Your task to perform on an android device: Open settings on Google Maps Image 0: 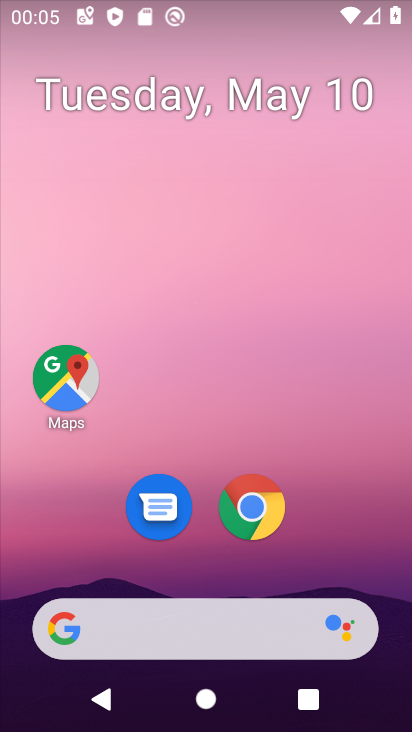
Step 0: drag from (334, 525) to (314, 384)
Your task to perform on an android device: Open settings on Google Maps Image 1: 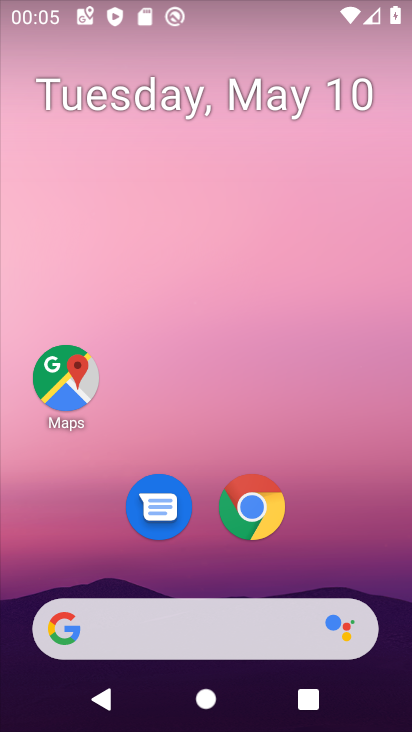
Step 1: click (60, 352)
Your task to perform on an android device: Open settings on Google Maps Image 2: 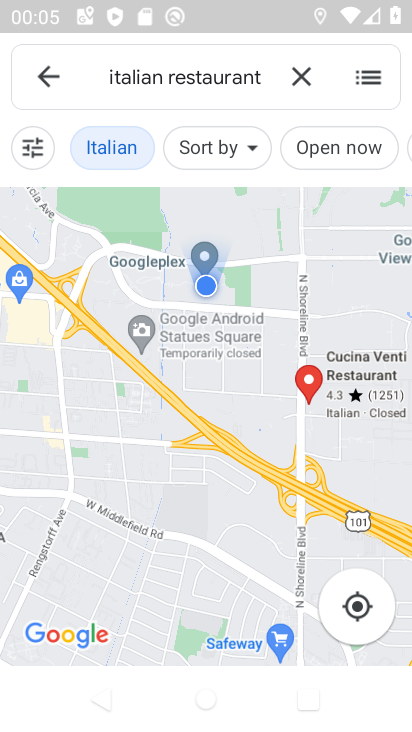
Step 2: click (34, 84)
Your task to perform on an android device: Open settings on Google Maps Image 3: 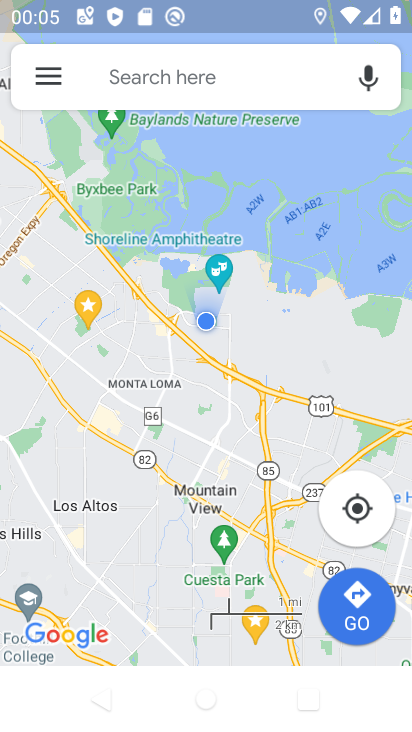
Step 3: click (32, 72)
Your task to perform on an android device: Open settings on Google Maps Image 4: 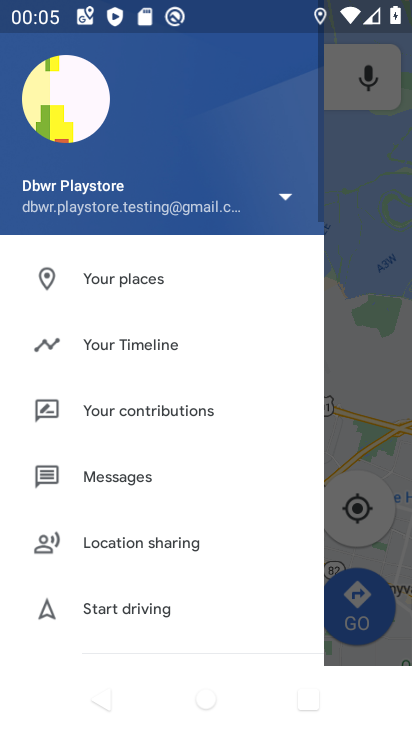
Step 4: drag from (123, 590) to (101, 97)
Your task to perform on an android device: Open settings on Google Maps Image 5: 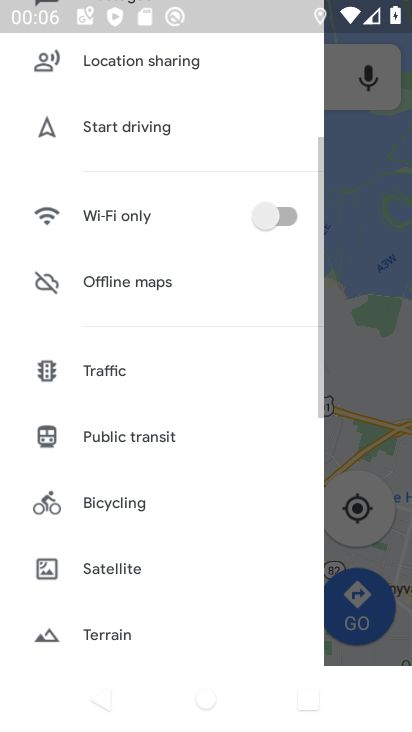
Step 5: drag from (133, 584) to (98, 174)
Your task to perform on an android device: Open settings on Google Maps Image 6: 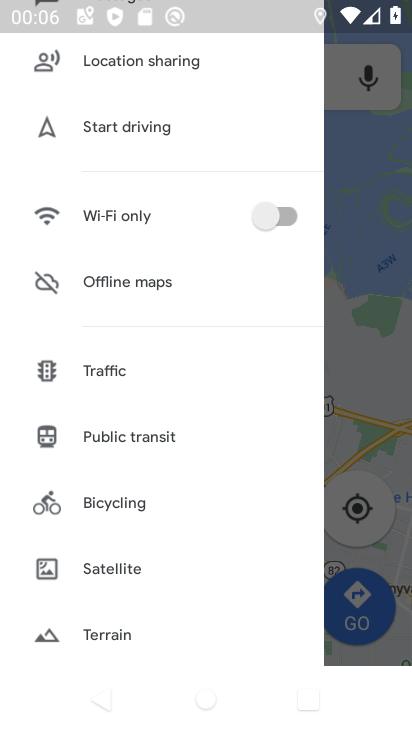
Step 6: drag from (82, 608) to (58, 377)
Your task to perform on an android device: Open settings on Google Maps Image 7: 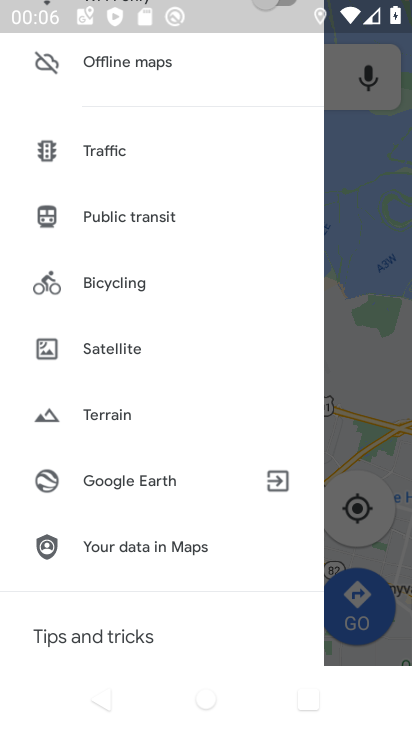
Step 7: drag from (64, 575) to (40, 448)
Your task to perform on an android device: Open settings on Google Maps Image 8: 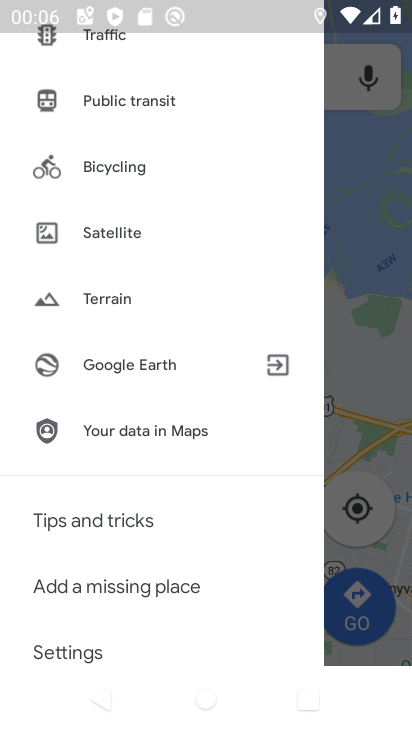
Step 8: drag from (183, 531) to (178, 195)
Your task to perform on an android device: Open settings on Google Maps Image 9: 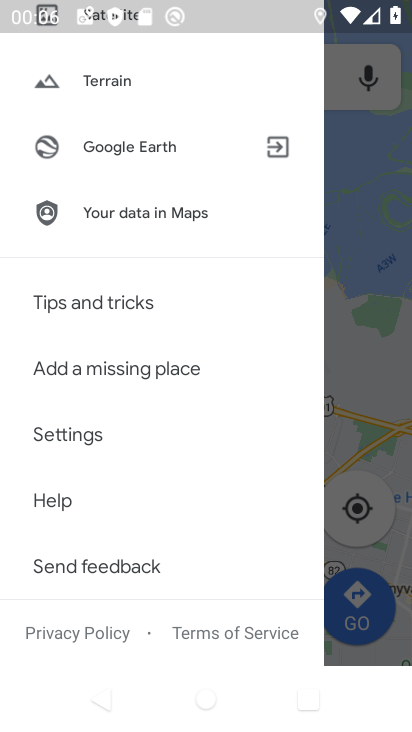
Step 9: click (110, 436)
Your task to perform on an android device: Open settings on Google Maps Image 10: 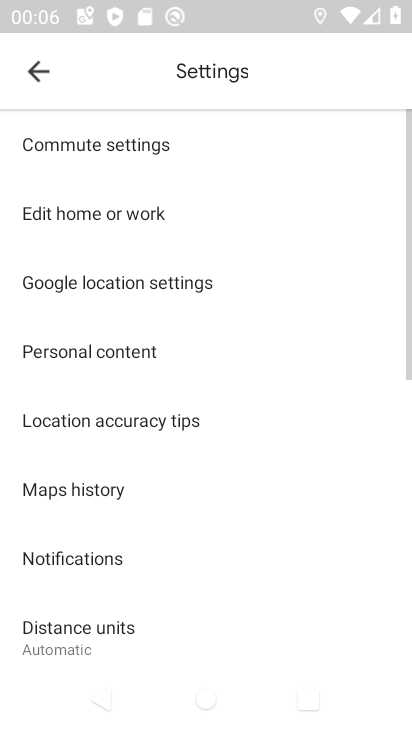
Step 10: task complete